Your task to perform on an android device: Show me popular videos on Youtube Image 0: 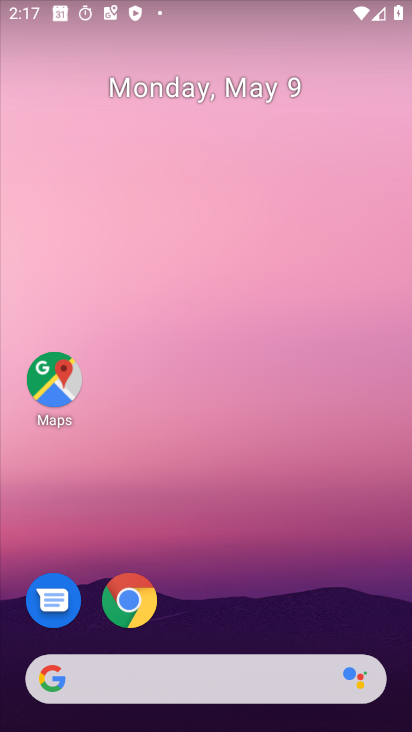
Step 0: drag from (261, 602) to (290, 235)
Your task to perform on an android device: Show me popular videos on Youtube Image 1: 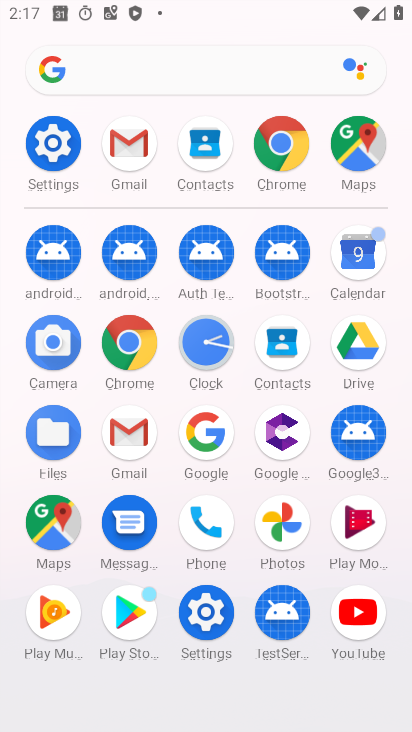
Step 1: click (359, 605)
Your task to perform on an android device: Show me popular videos on Youtube Image 2: 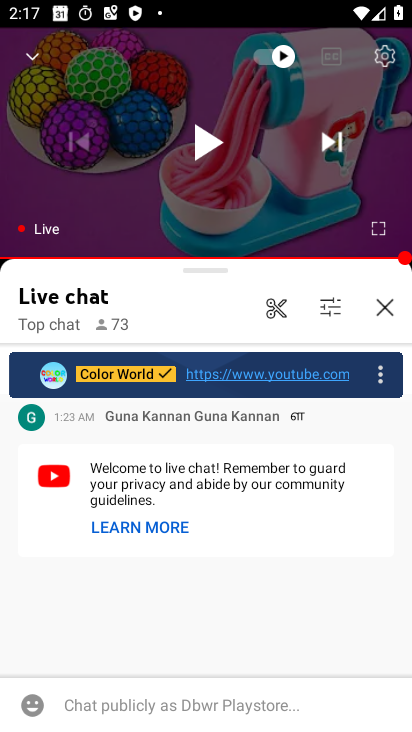
Step 2: click (22, 54)
Your task to perform on an android device: Show me popular videos on Youtube Image 3: 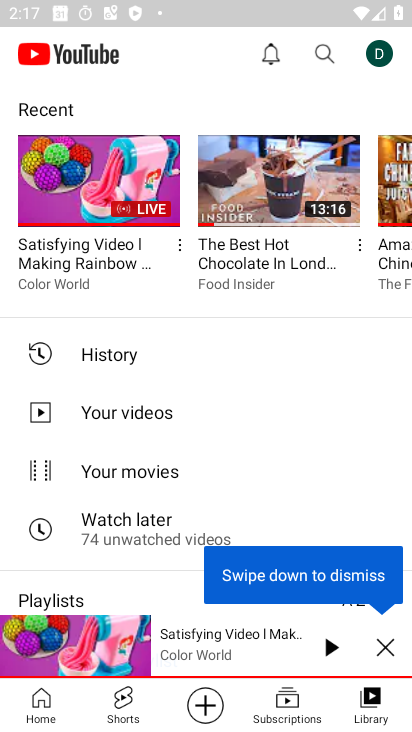
Step 3: press back button
Your task to perform on an android device: Show me popular videos on Youtube Image 4: 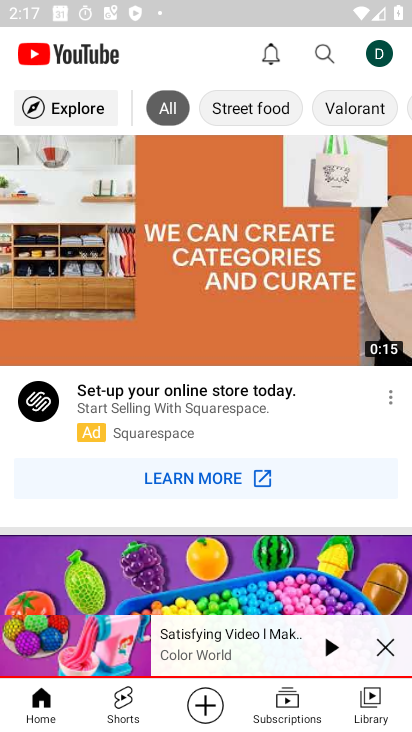
Step 4: click (117, 110)
Your task to perform on an android device: Show me popular videos on Youtube Image 5: 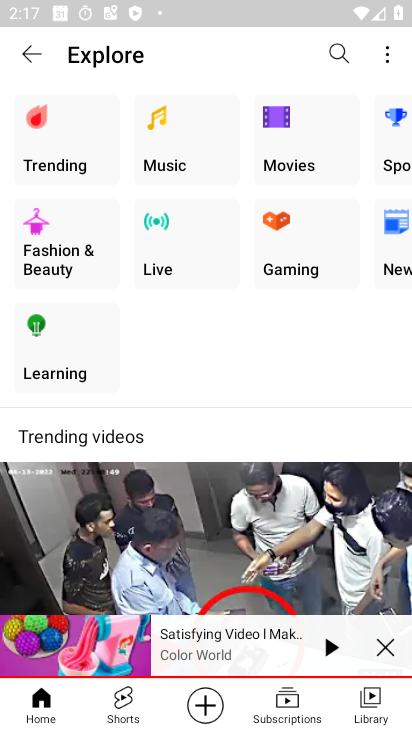
Step 5: click (65, 167)
Your task to perform on an android device: Show me popular videos on Youtube Image 6: 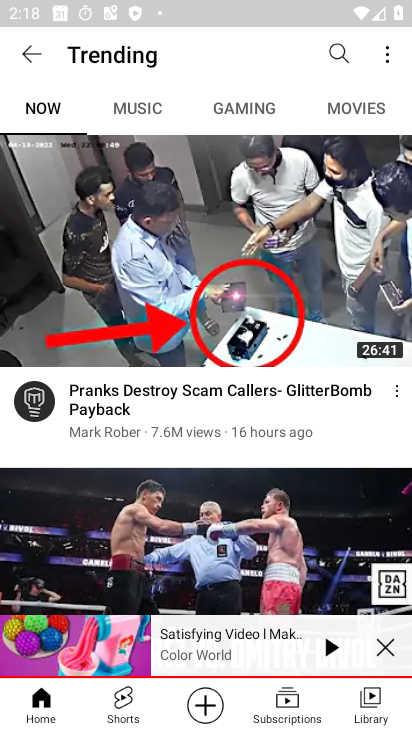
Step 6: task complete